Your task to perform on an android device: install app "Firefox Browser" Image 0: 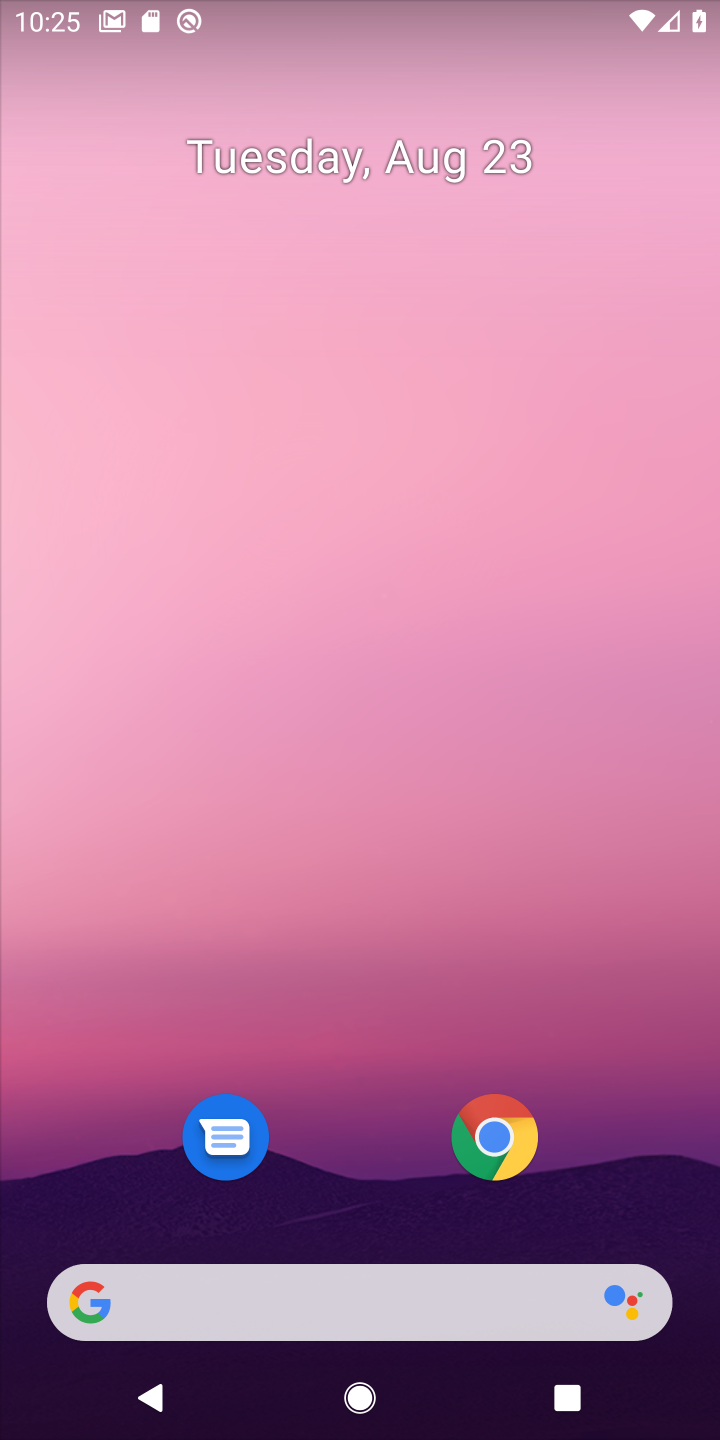
Step 0: drag from (365, 747) to (381, 552)
Your task to perform on an android device: install app "Firefox Browser" Image 1: 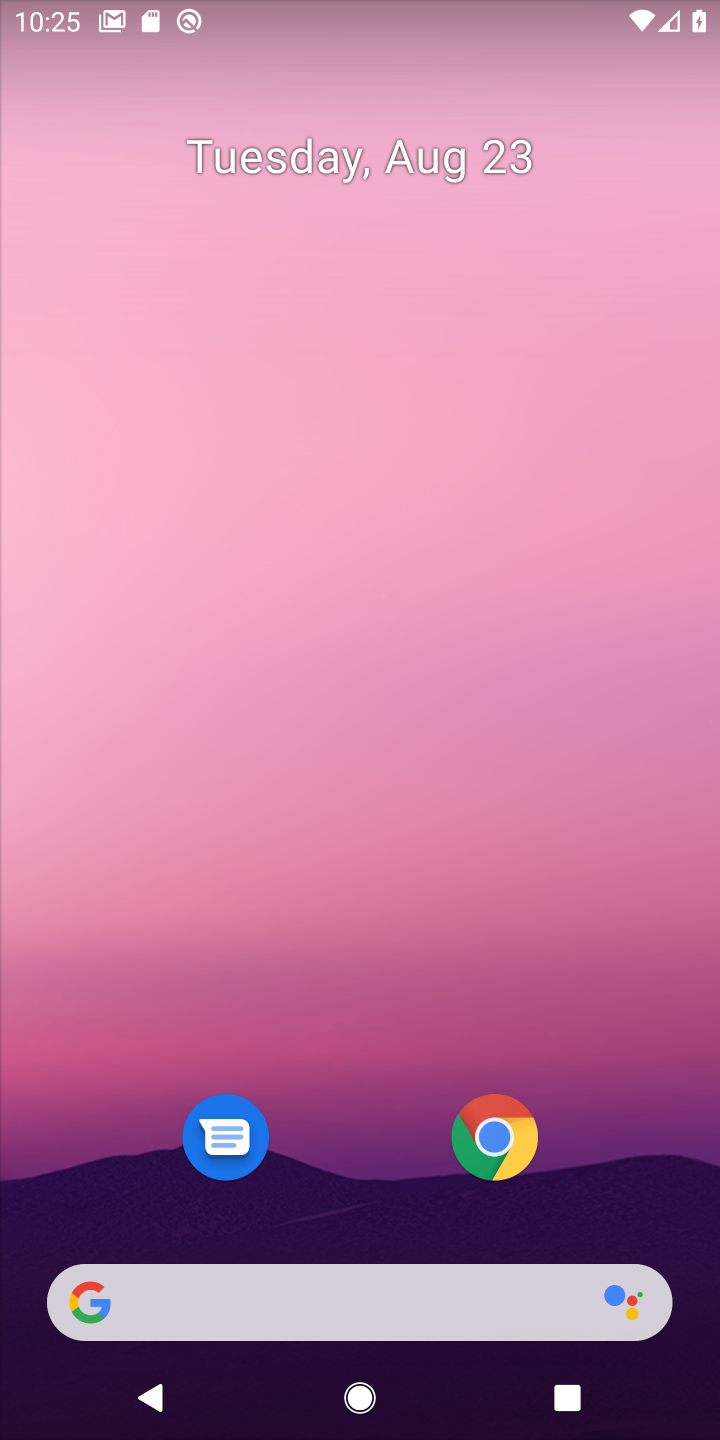
Step 1: drag from (328, 1226) to (707, 129)
Your task to perform on an android device: install app "Firefox Browser" Image 2: 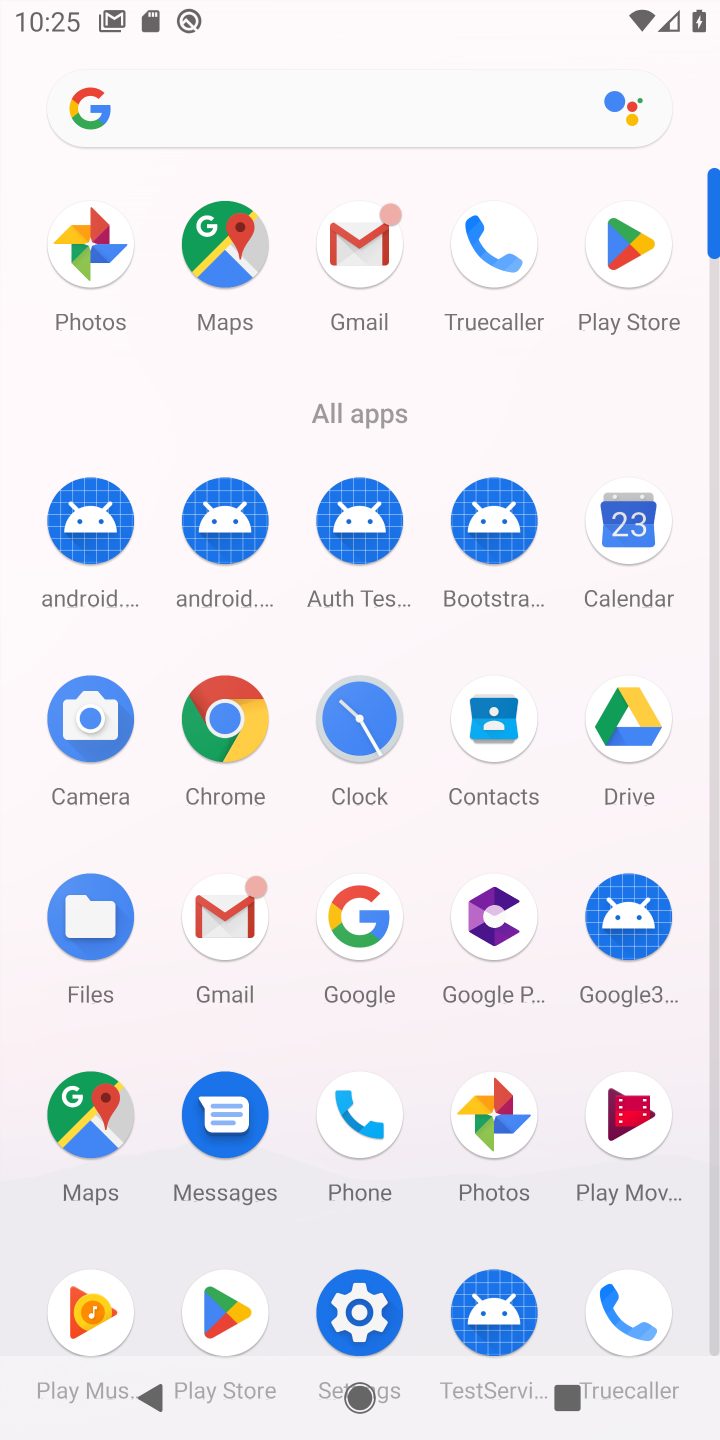
Step 2: click (654, 286)
Your task to perform on an android device: install app "Firefox Browser" Image 3: 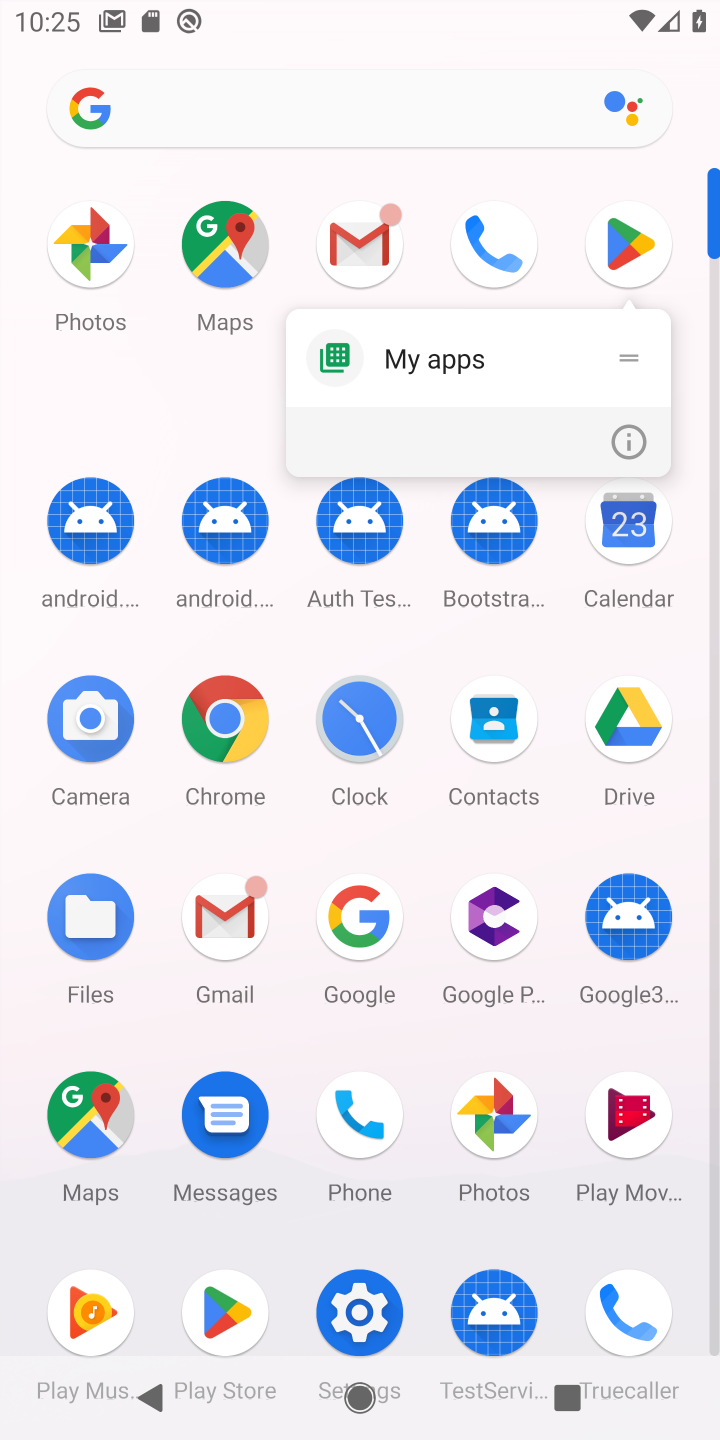
Step 3: click (614, 229)
Your task to perform on an android device: install app "Firefox Browser" Image 4: 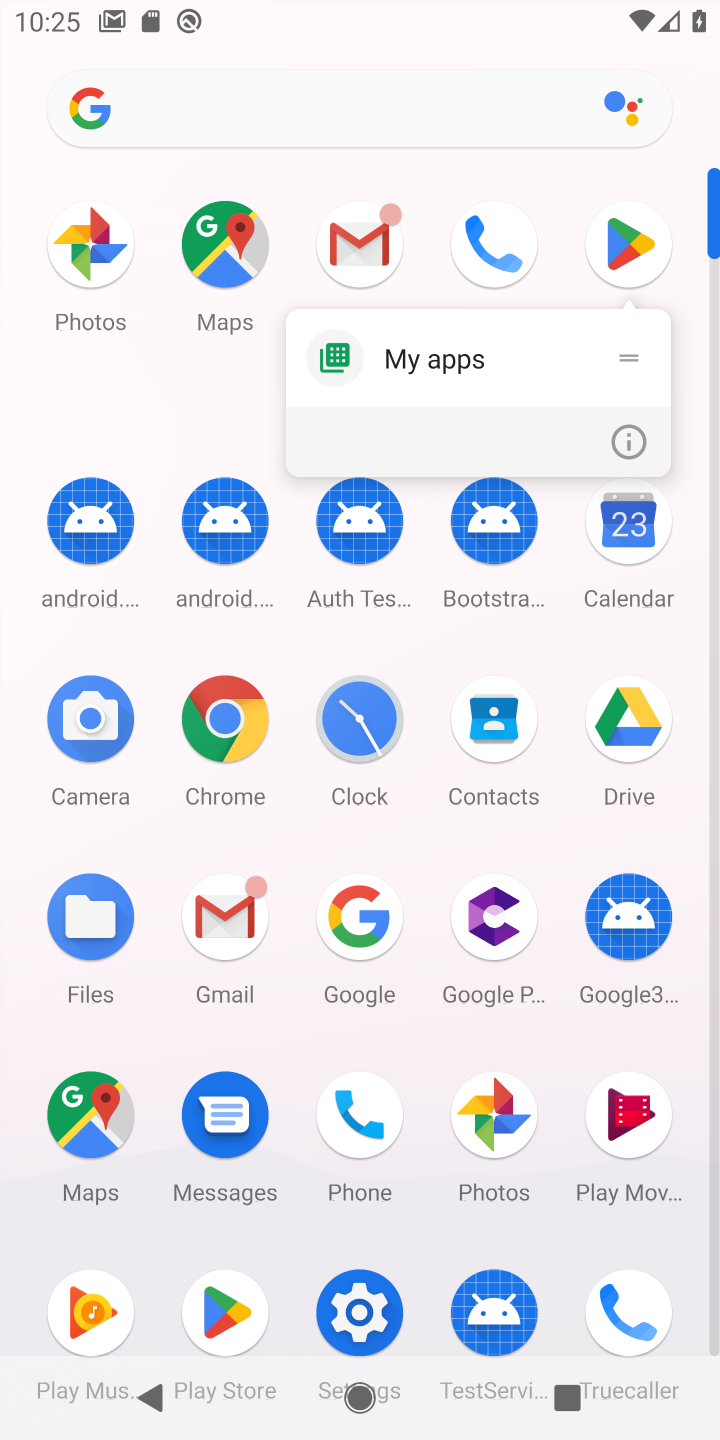
Step 4: click (587, 271)
Your task to perform on an android device: install app "Firefox Browser" Image 5: 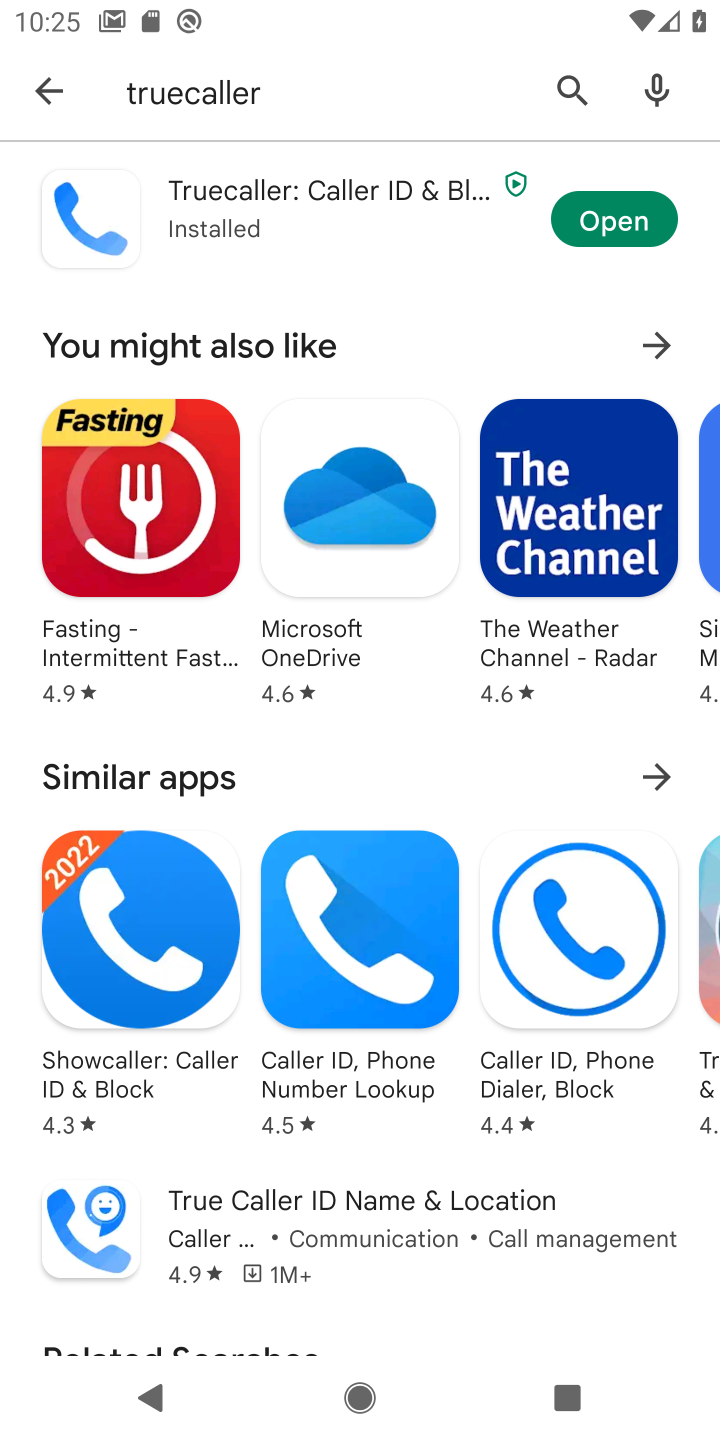
Step 5: click (233, 78)
Your task to perform on an android device: install app "Firefox Browser" Image 6: 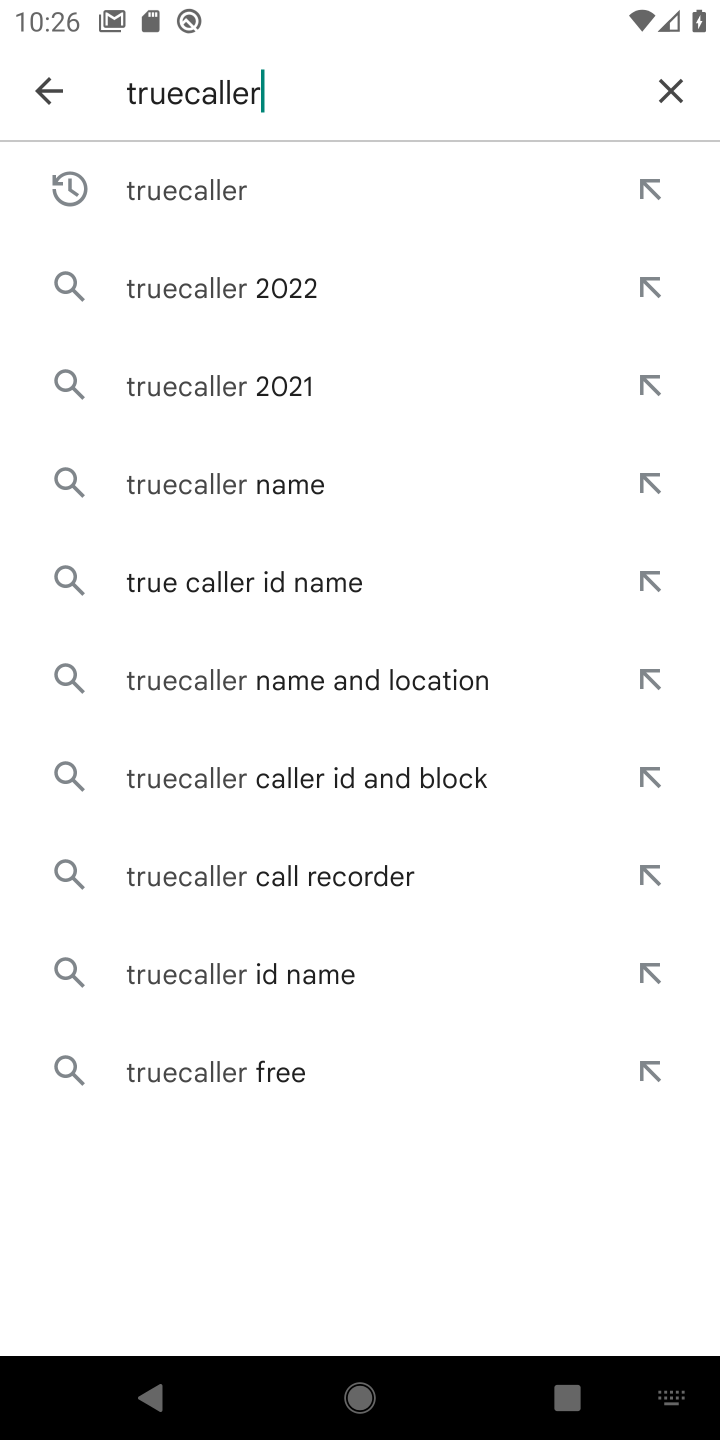
Step 6: click (671, 77)
Your task to perform on an android device: install app "Firefox Browser" Image 7: 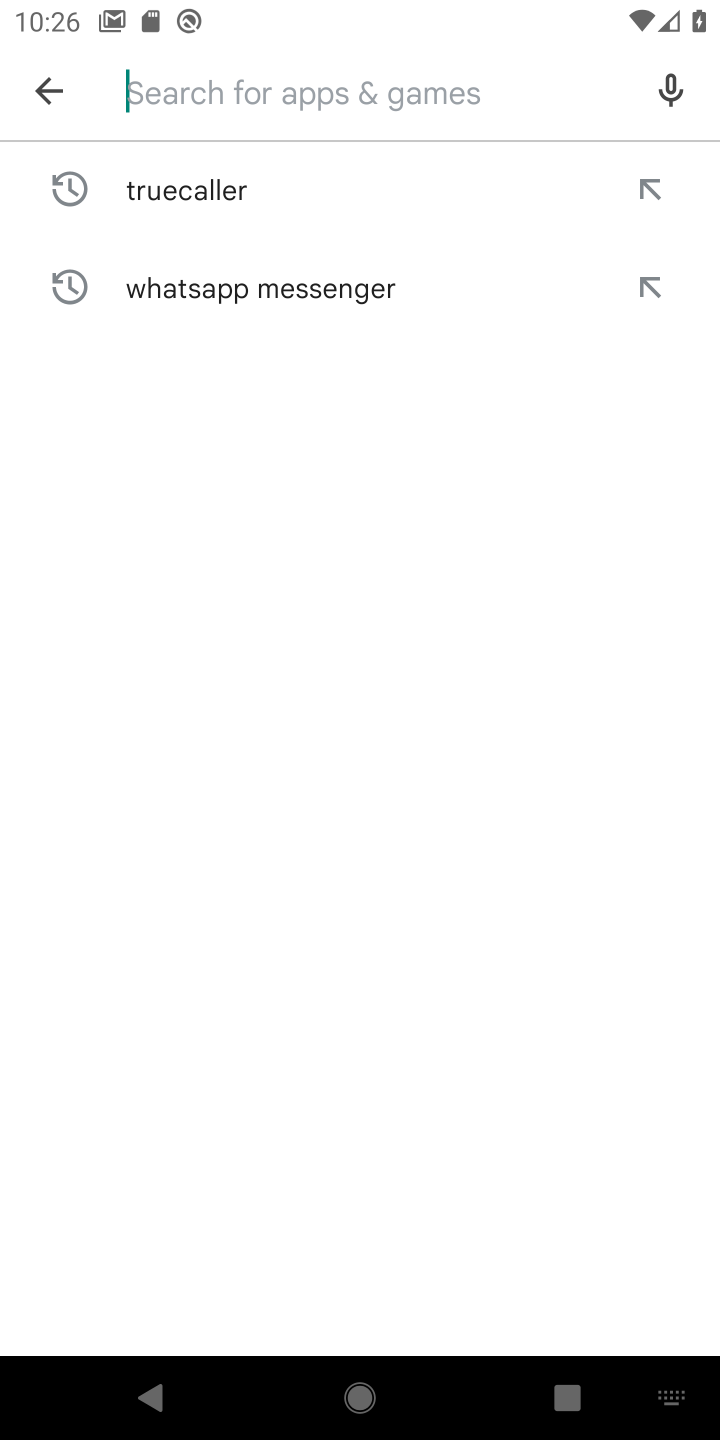
Step 7: type "firefox browser"
Your task to perform on an android device: install app "Firefox Browser" Image 8: 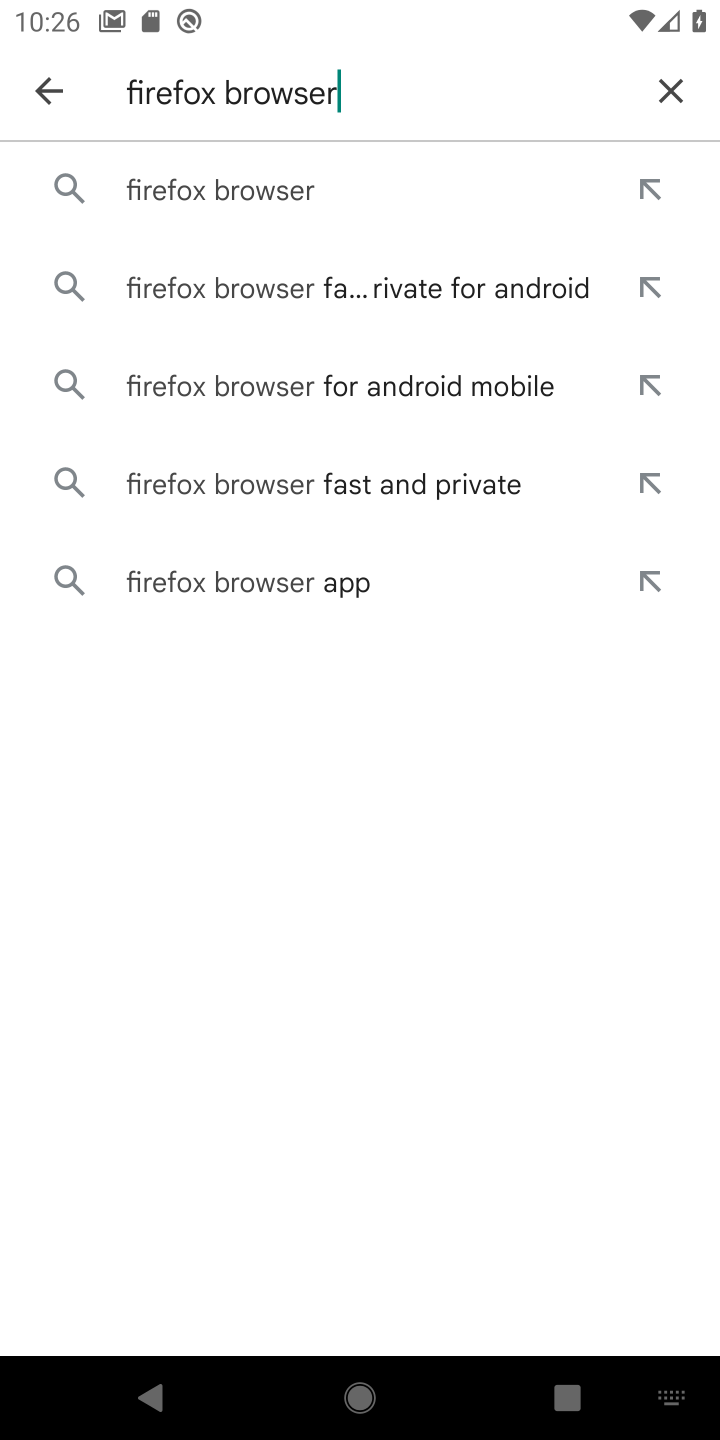
Step 8: click (346, 208)
Your task to perform on an android device: install app "Firefox Browser" Image 9: 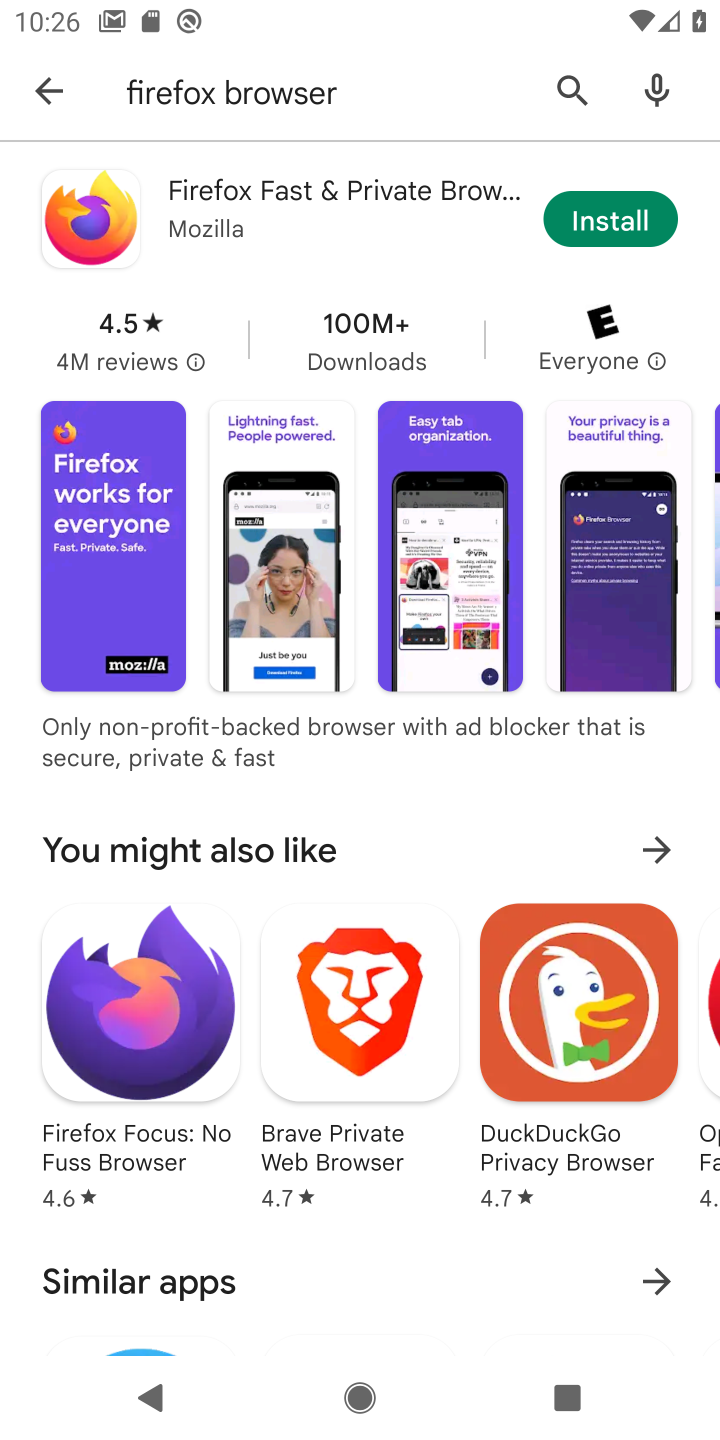
Step 9: click (614, 220)
Your task to perform on an android device: install app "Firefox Browser" Image 10: 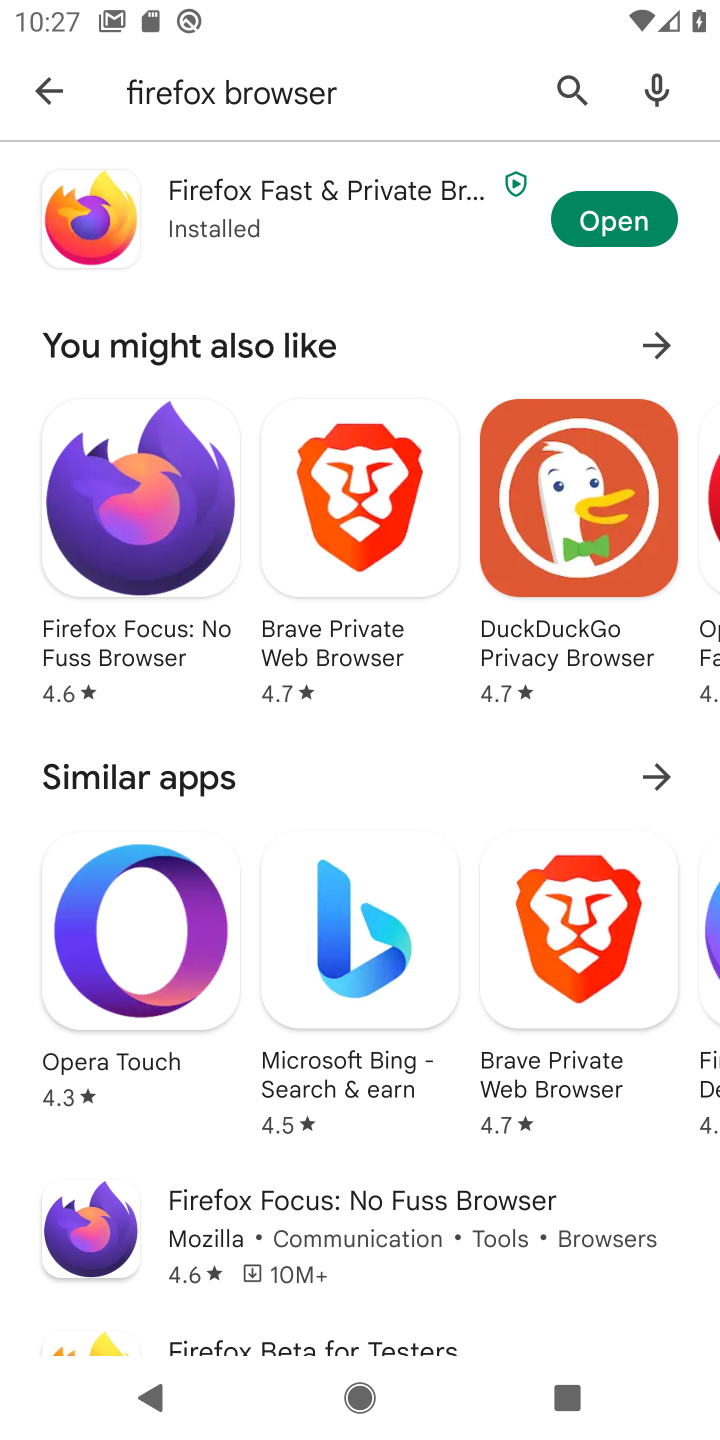
Step 10: task complete